Your task to perform on an android device: Open calendar and show me the second week of next month Image 0: 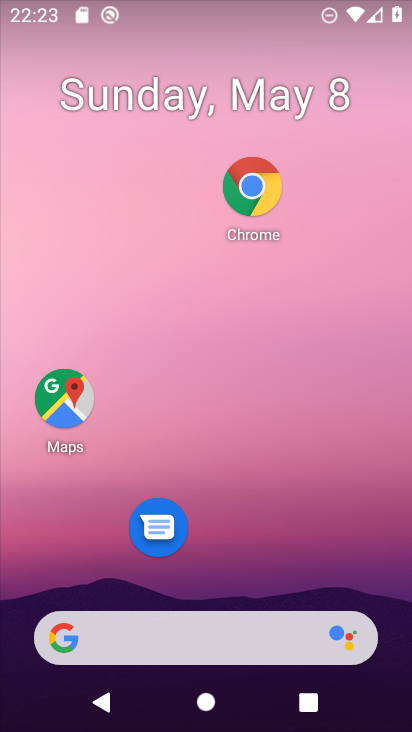
Step 0: drag from (323, 562) to (390, 220)
Your task to perform on an android device: Open calendar and show me the second week of next month Image 1: 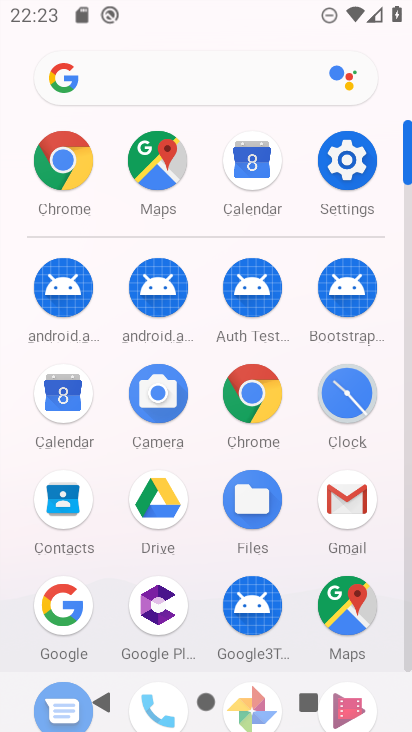
Step 1: click (56, 392)
Your task to perform on an android device: Open calendar and show me the second week of next month Image 2: 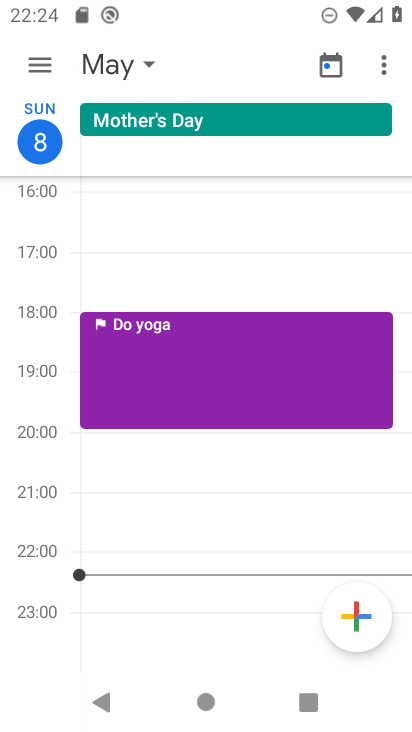
Step 2: click (41, 59)
Your task to perform on an android device: Open calendar and show me the second week of next month Image 3: 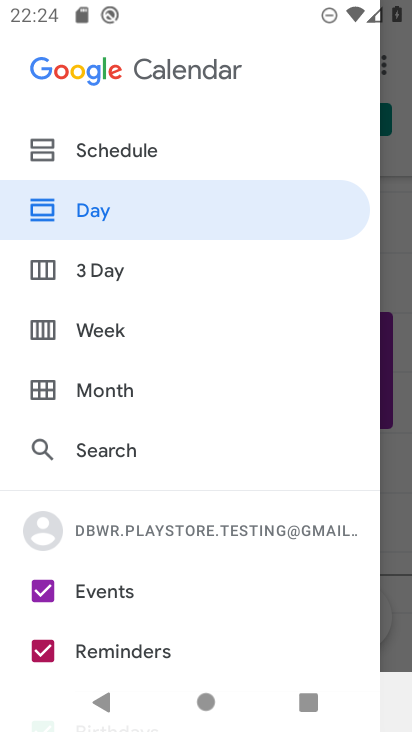
Step 3: click (112, 386)
Your task to perform on an android device: Open calendar and show me the second week of next month Image 4: 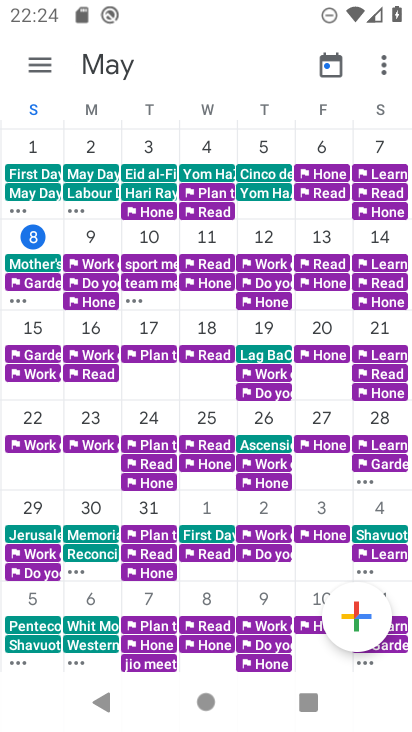
Step 4: task complete